Your task to perform on an android device: set the stopwatch Image 0: 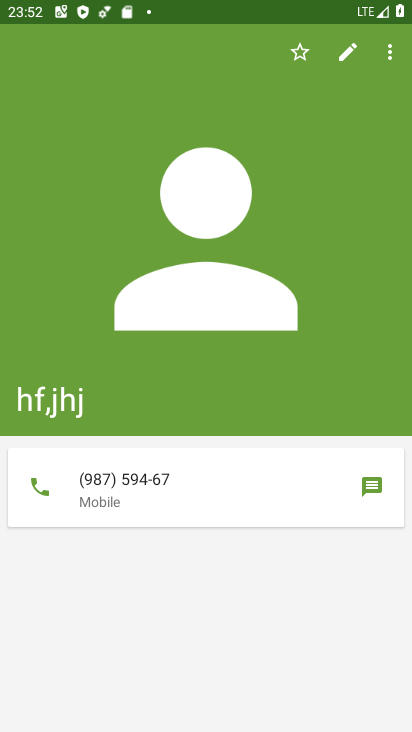
Step 0: press home button
Your task to perform on an android device: set the stopwatch Image 1: 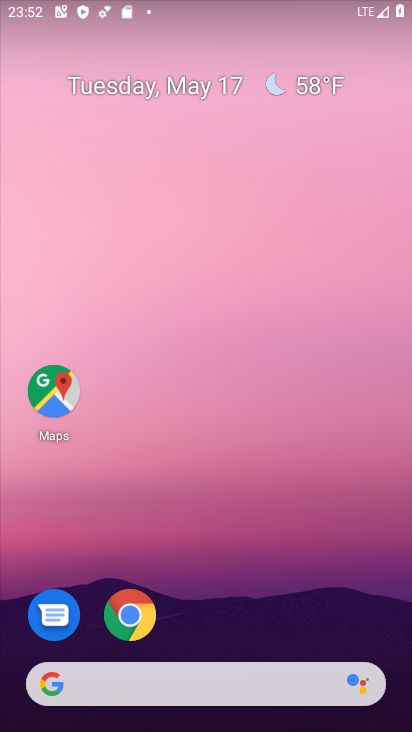
Step 1: drag from (220, 567) to (215, 216)
Your task to perform on an android device: set the stopwatch Image 2: 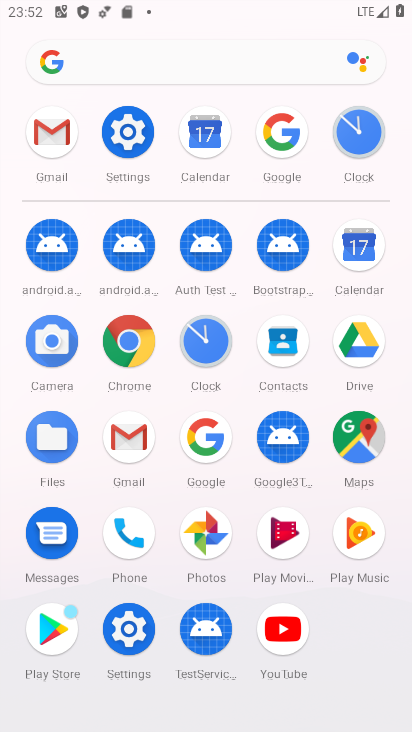
Step 2: click (354, 156)
Your task to perform on an android device: set the stopwatch Image 3: 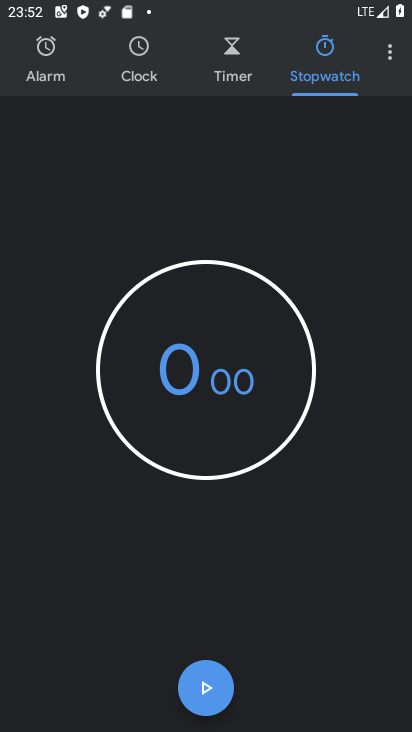
Step 3: click (215, 684)
Your task to perform on an android device: set the stopwatch Image 4: 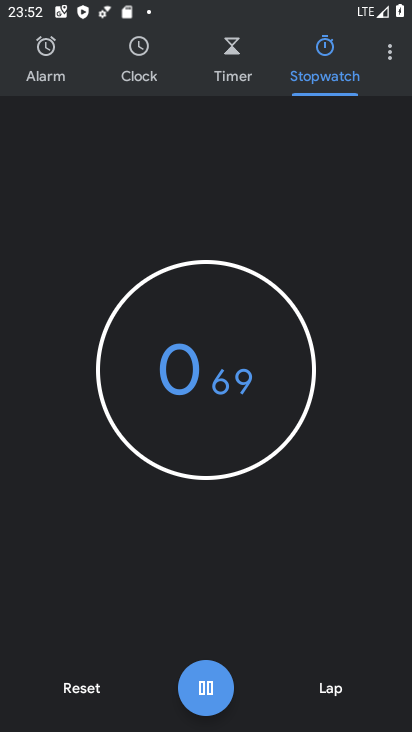
Step 4: task complete